Your task to perform on an android device: Do I have any events this weekend? Image 0: 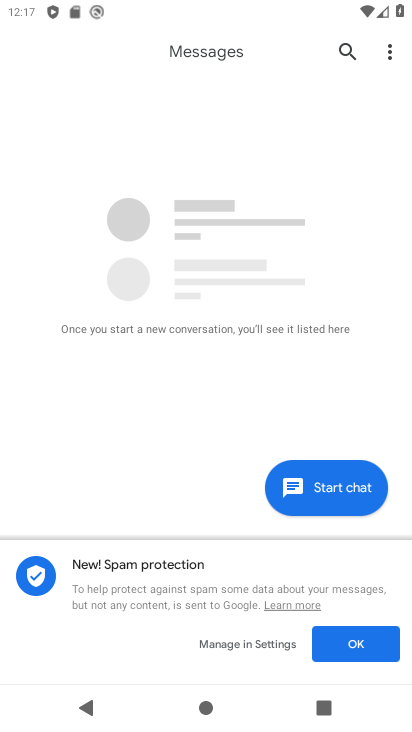
Step 0: press home button
Your task to perform on an android device: Do I have any events this weekend? Image 1: 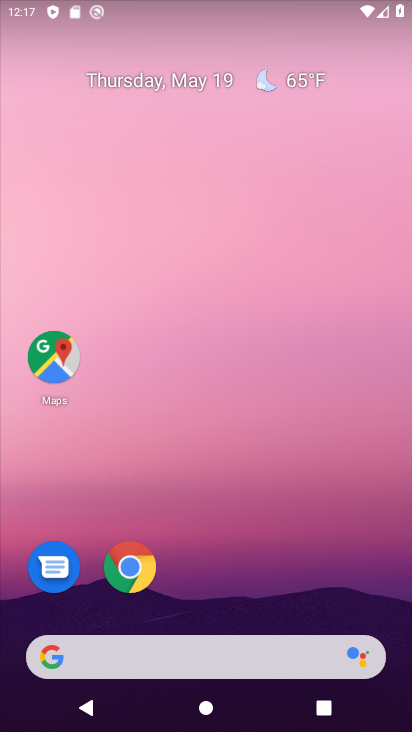
Step 1: drag from (232, 590) to (220, 244)
Your task to perform on an android device: Do I have any events this weekend? Image 2: 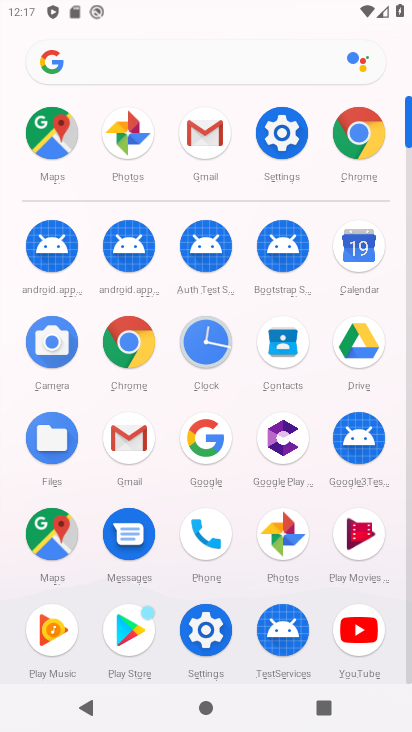
Step 2: click (204, 430)
Your task to perform on an android device: Do I have any events this weekend? Image 3: 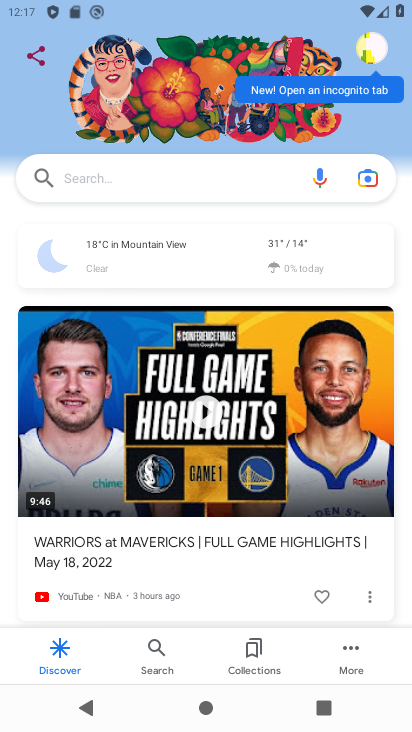
Step 3: press home button
Your task to perform on an android device: Do I have any events this weekend? Image 4: 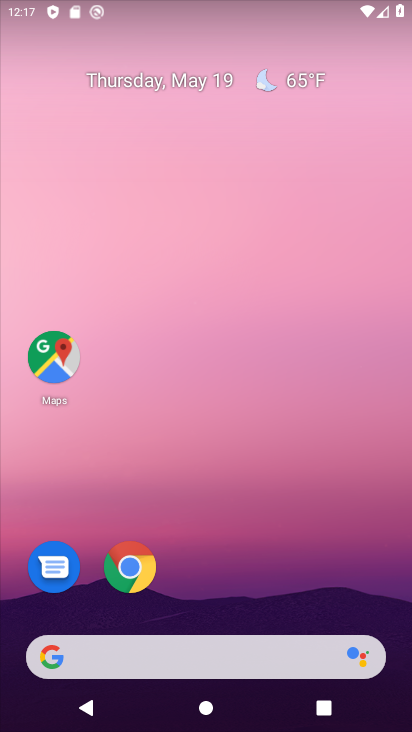
Step 4: click (181, 82)
Your task to perform on an android device: Do I have any events this weekend? Image 5: 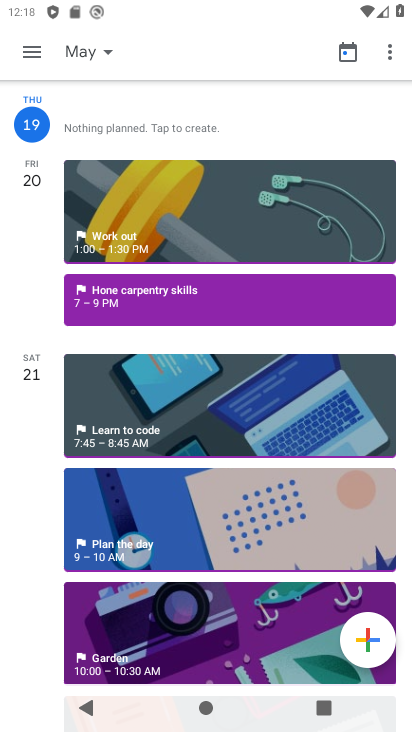
Step 5: click (105, 58)
Your task to perform on an android device: Do I have any events this weekend? Image 6: 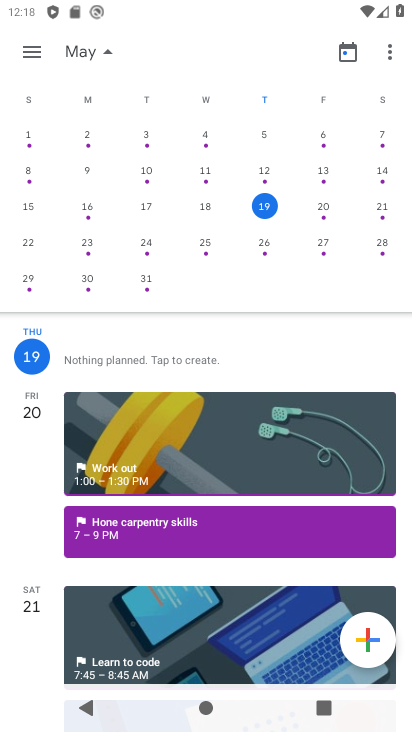
Step 6: click (33, 46)
Your task to perform on an android device: Do I have any events this weekend? Image 7: 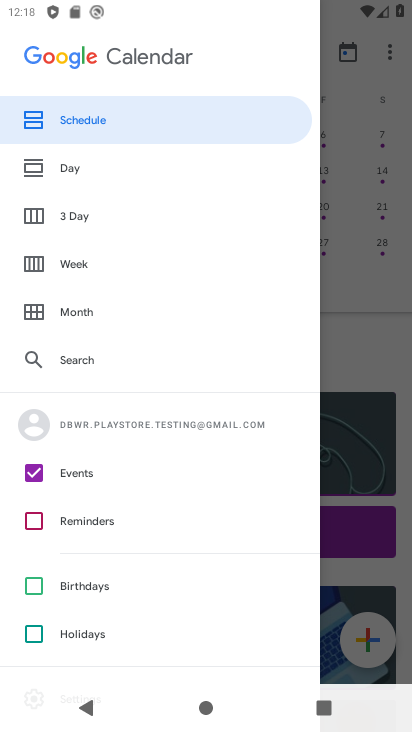
Step 7: click (73, 221)
Your task to perform on an android device: Do I have any events this weekend? Image 8: 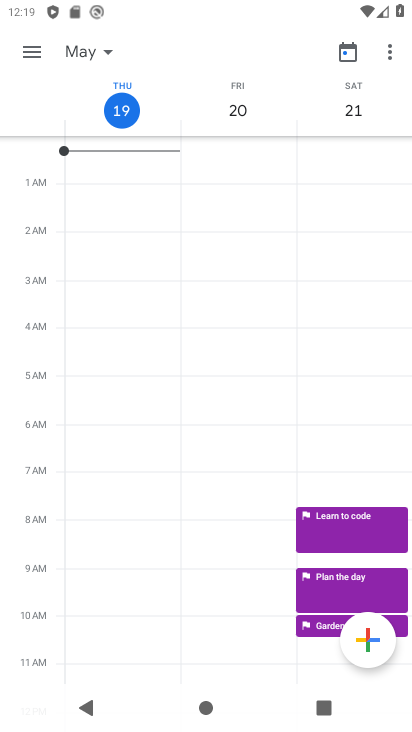
Step 8: task complete